Your task to perform on an android device: Go to privacy settings Image 0: 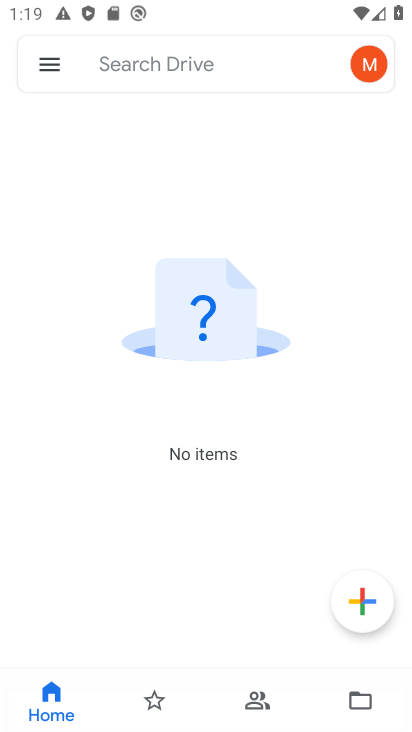
Step 0: press home button
Your task to perform on an android device: Go to privacy settings Image 1: 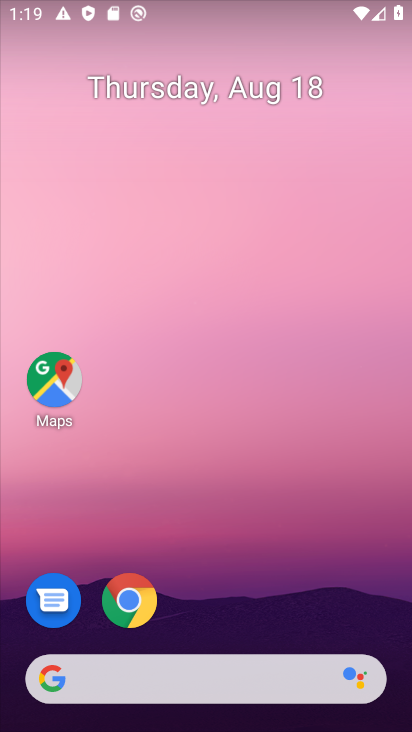
Step 1: drag from (247, 587) to (242, 22)
Your task to perform on an android device: Go to privacy settings Image 2: 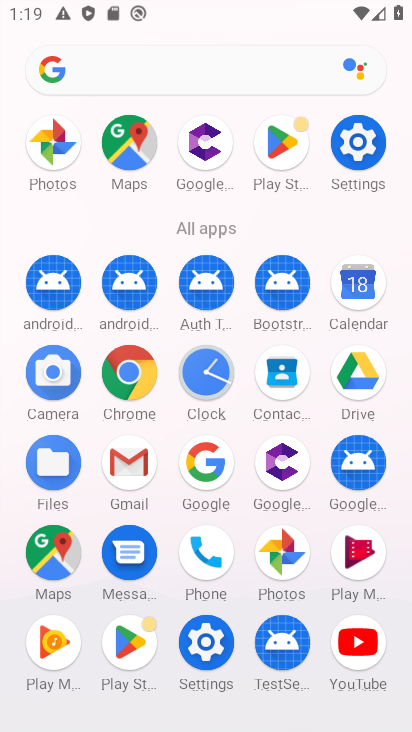
Step 2: click (359, 142)
Your task to perform on an android device: Go to privacy settings Image 3: 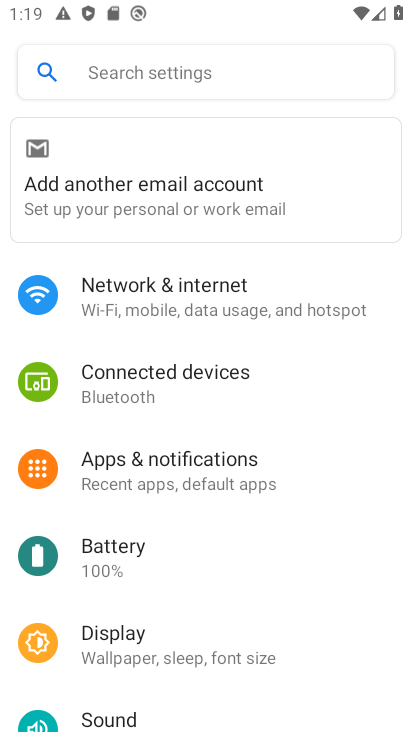
Step 3: drag from (211, 606) to (188, 347)
Your task to perform on an android device: Go to privacy settings Image 4: 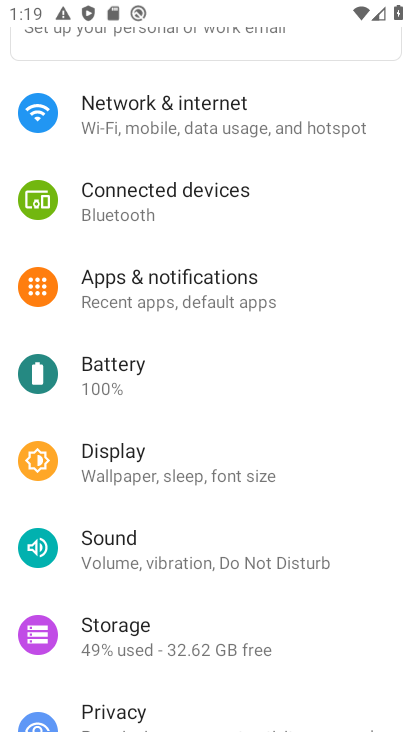
Step 4: click (114, 705)
Your task to perform on an android device: Go to privacy settings Image 5: 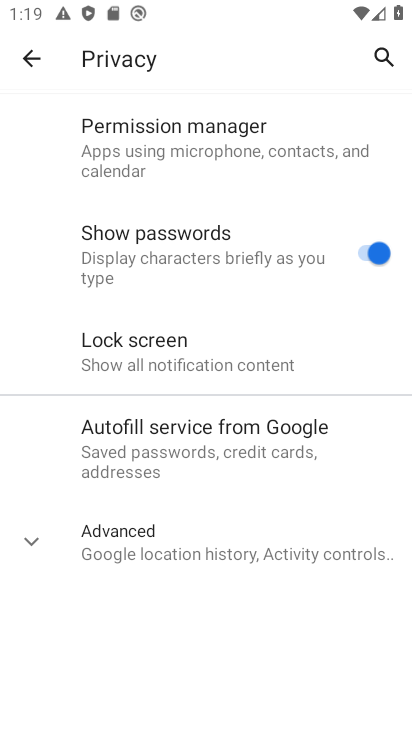
Step 5: task complete